Your task to perform on an android device: Open calendar and show me the third week of next month Image 0: 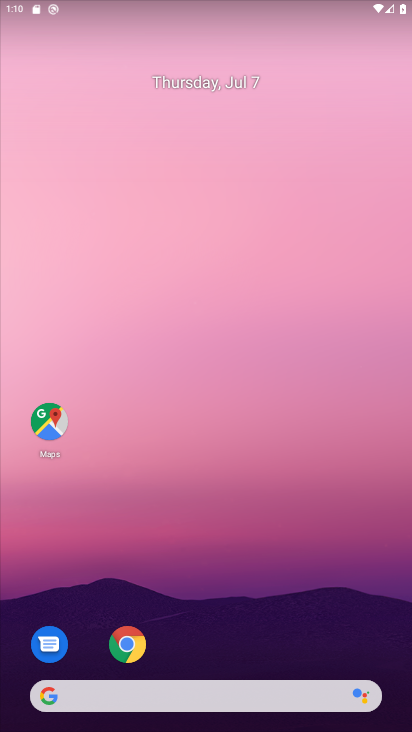
Step 0: click (249, 654)
Your task to perform on an android device: Open calendar and show me the third week of next month Image 1: 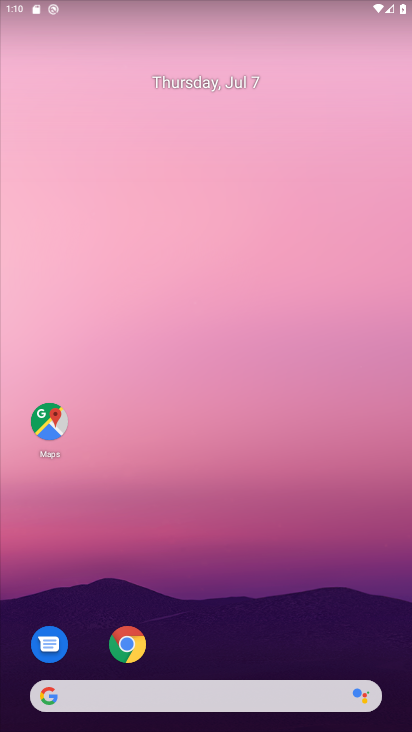
Step 1: drag from (253, 575) to (246, 277)
Your task to perform on an android device: Open calendar and show me the third week of next month Image 2: 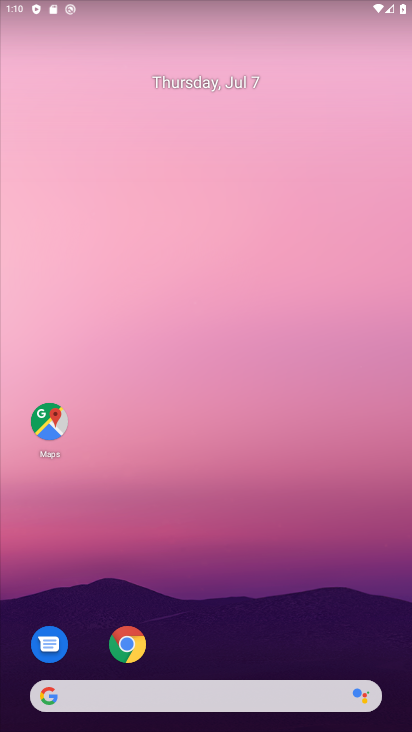
Step 2: drag from (192, 724) to (191, 153)
Your task to perform on an android device: Open calendar and show me the third week of next month Image 3: 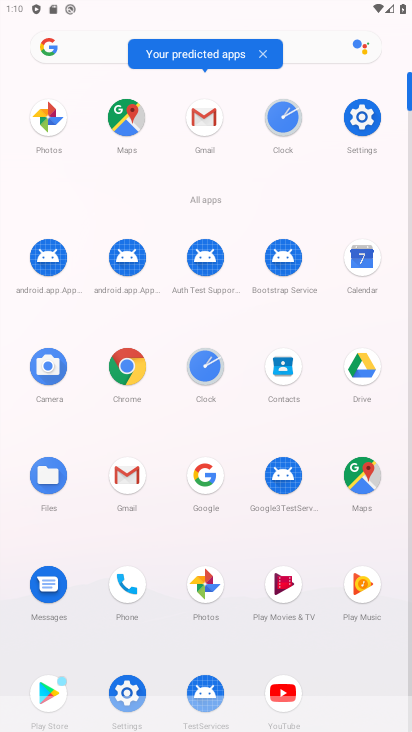
Step 3: click (356, 258)
Your task to perform on an android device: Open calendar and show me the third week of next month Image 4: 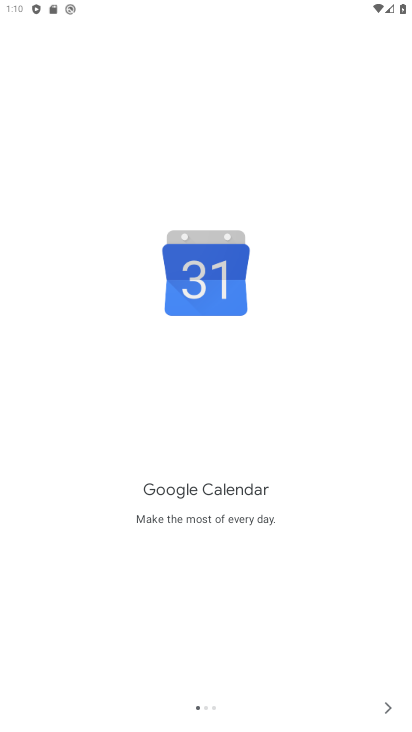
Step 4: click (390, 703)
Your task to perform on an android device: Open calendar and show me the third week of next month Image 5: 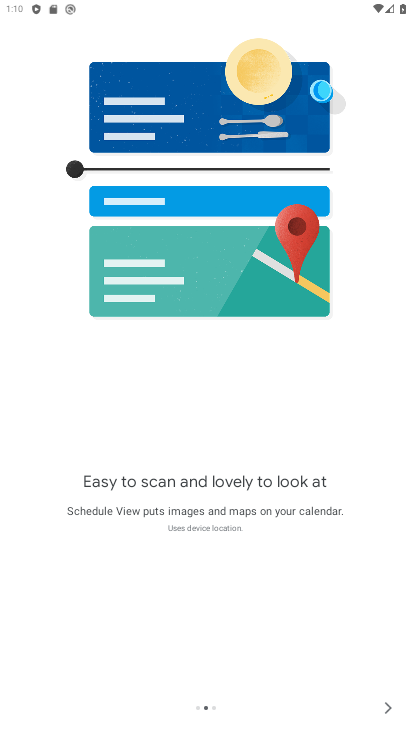
Step 5: click (387, 703)
Your task to perform on an android device: Open calendar and show me the third week of next month Image 6: 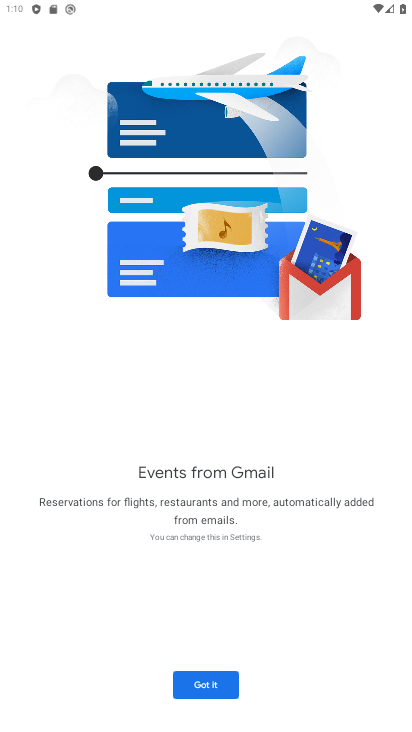
Step 6: click (215, 682)
Your task to perform on an android device: Open calendar and show me the third week of next month Image 7: 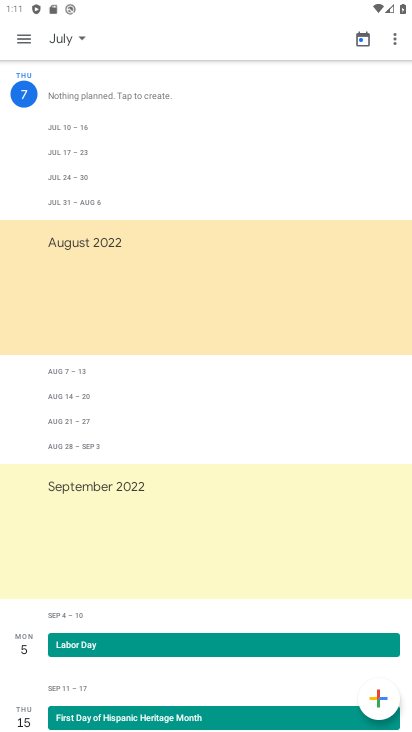
Step 7: click (71, 32)
Your task to perform on an android device: Open calendar and show me the third week of next month Image 8: 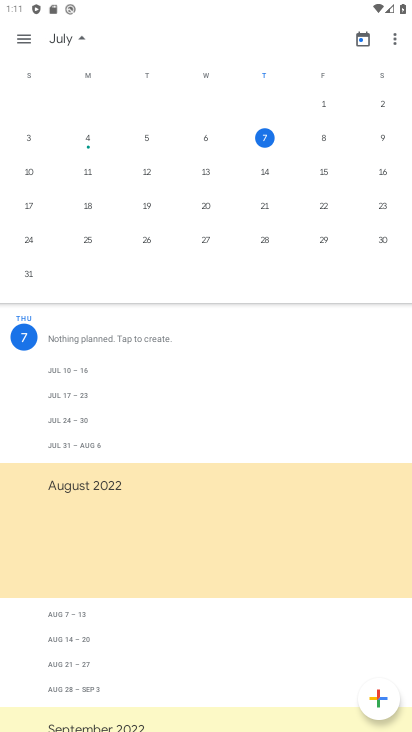
Step 8: drag from (343, 189) to (50, 177)
Your task to perform on an android device: Open calendar and show me the third week of next month Image 9: 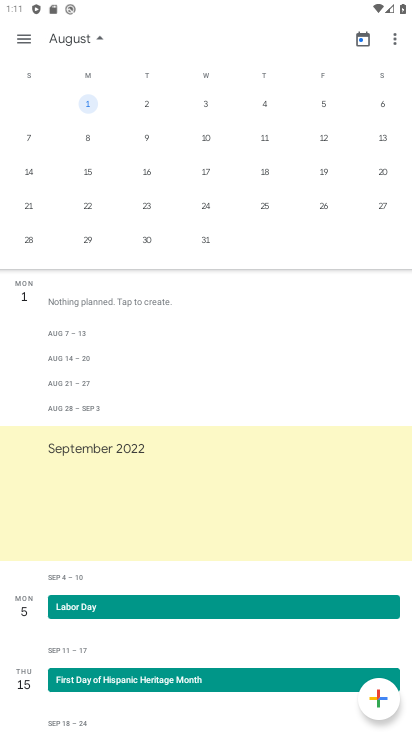
Step 9: click (87, 169)
Your task to perform on an android device: Open calendar and show me the third week of next month Image 10: 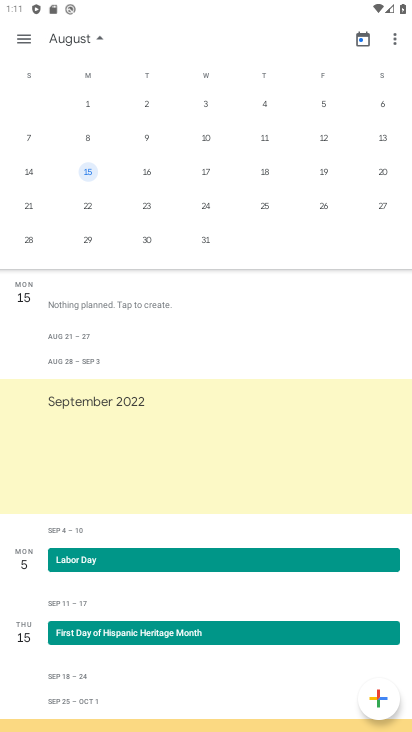
Step 10: click (25, 38)
Your task to perform on an android device: Open calendar and show me the third week of next month Image 11: 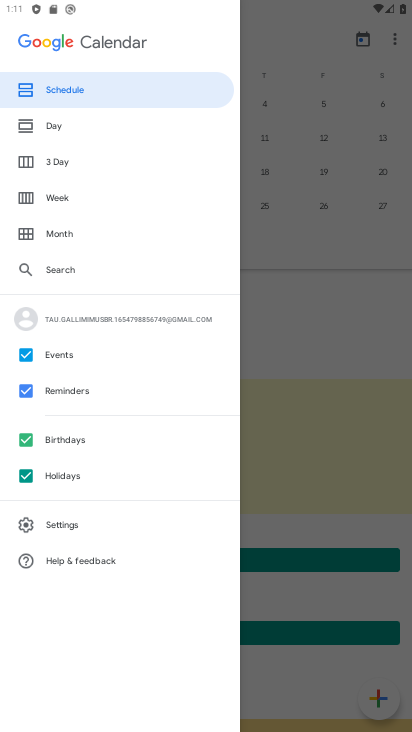
Step 11: click (59, 202)
Your task to perform on an android device: Open calendar and show me the third week of next month Image 12: 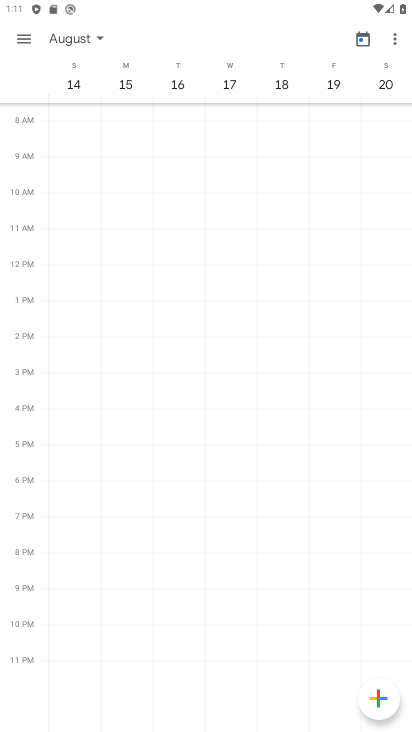
Step 12: task complete